Your task to perform on an android device: turn on notifications settings in the gmail app Image 0: 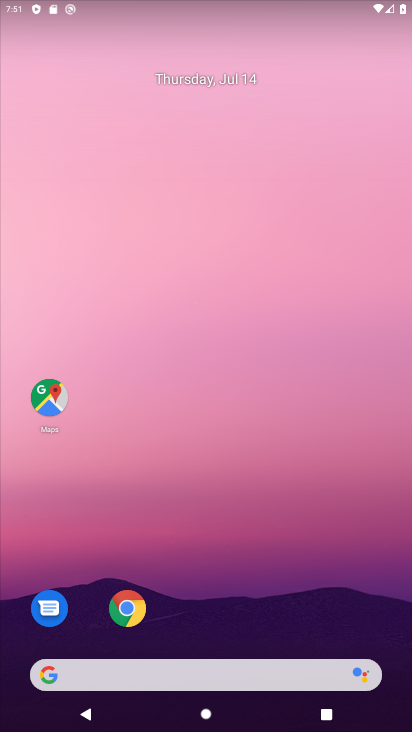
Step 0: drag from (270, 577) to (175, 101)
Your task to perform on an android device: turn on notifications settings in the gmail app Image 1: 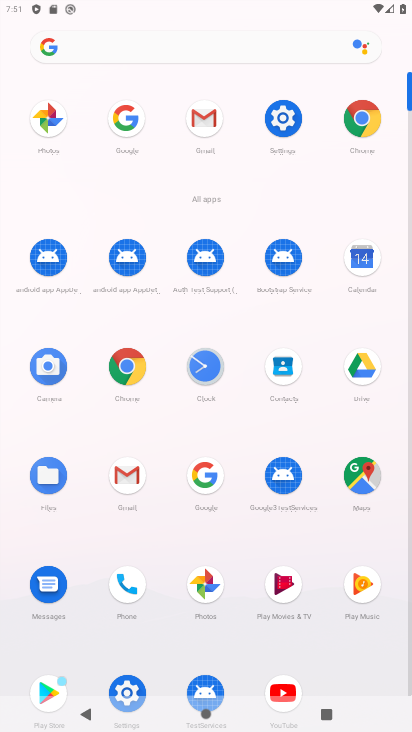
Step 1: click (201, 118)
Your task to perform on an android device: turn on notifications settings in the gmail app Image 2: 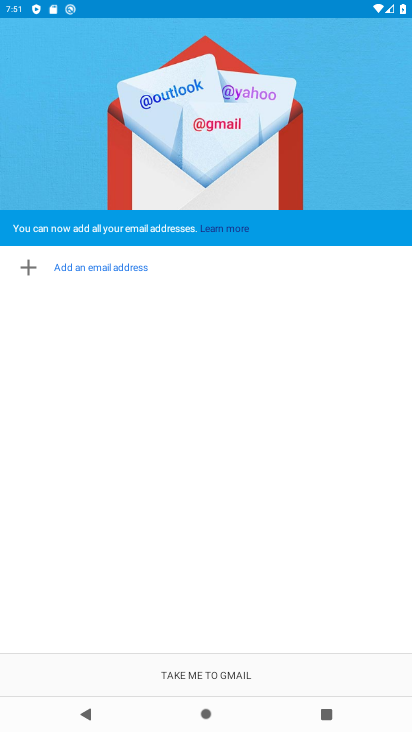
Step 2: click (198, 669)
Your task to perform on an android device: turn on notifications settings in the gmail app Image 3: 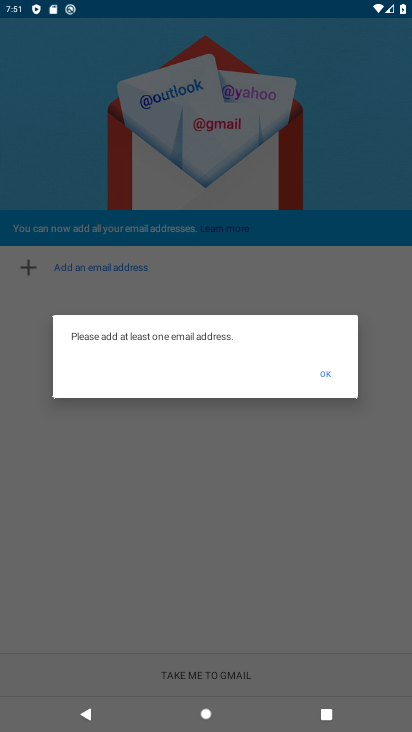
Step 3: click (320, 363)
Your task to perform on an android device: turn on notifications settings in the gmail app Image 4: 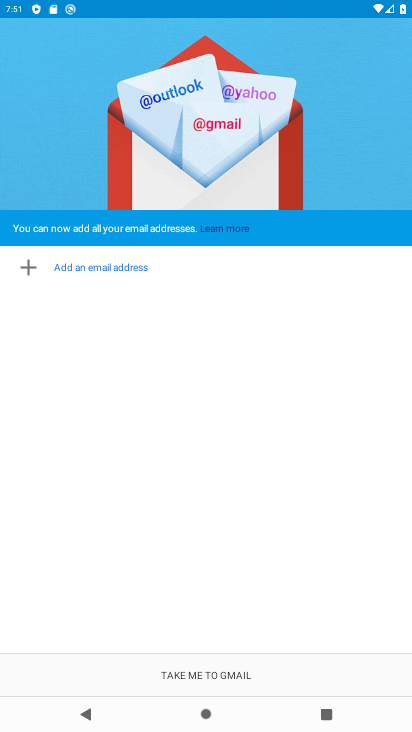
Step 4: task complete